Your task to perform on an android device: Go to Maps Image 0: 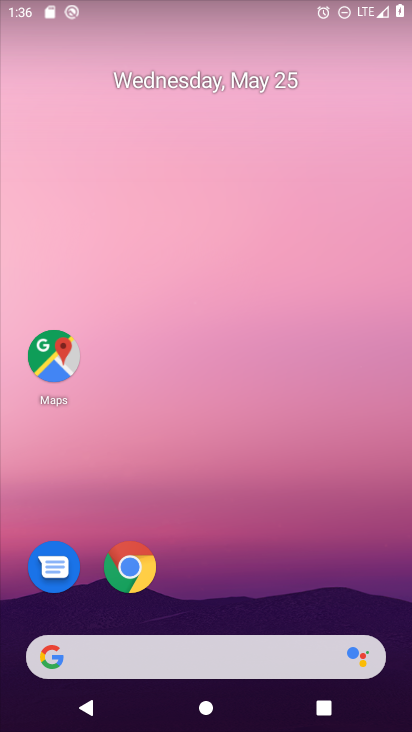
Step 0: click (47, 350)
Your task to perform on an android device: Go to Maps Image 1: 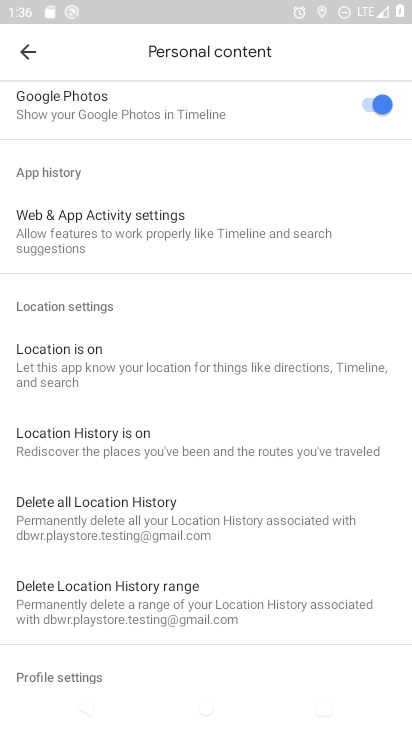
Step 1: click (17, 51)
Your task to perform on an android device: Go to Maps Image 2: 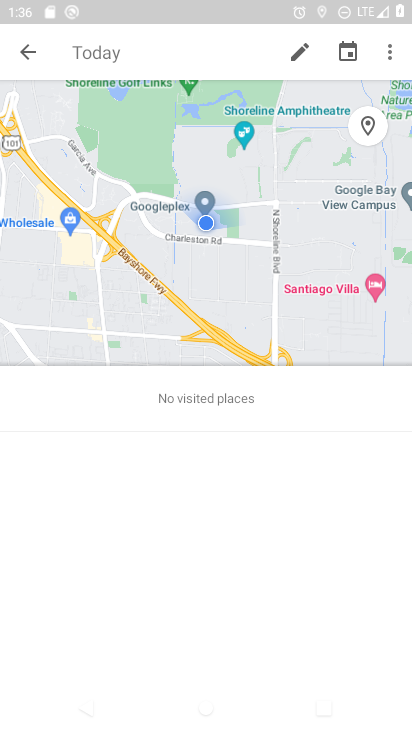
Step 2: task complete